Your task to perform on an android device: clear history in the chrome app Image 0: 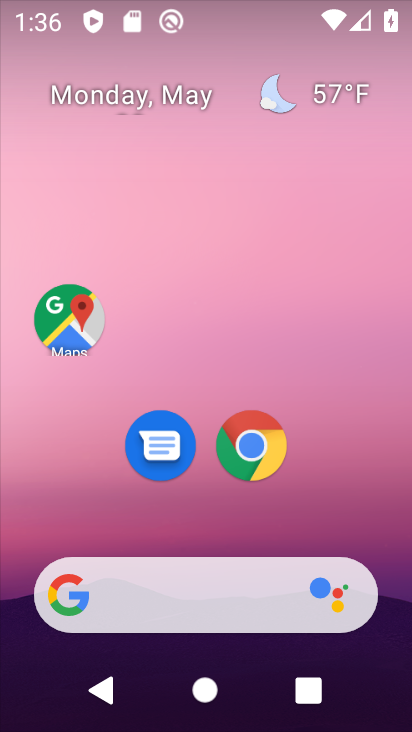
Step 0: click (241, 433)
Your task to perform on an android device: clear history in the chrome app Image 1: 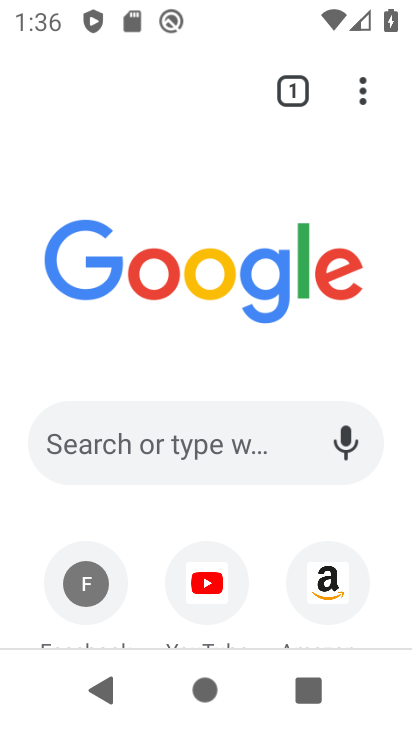
Step 1: click (341, 83)
Your task to perform on an android device: clear history in the chrome app Image 2: 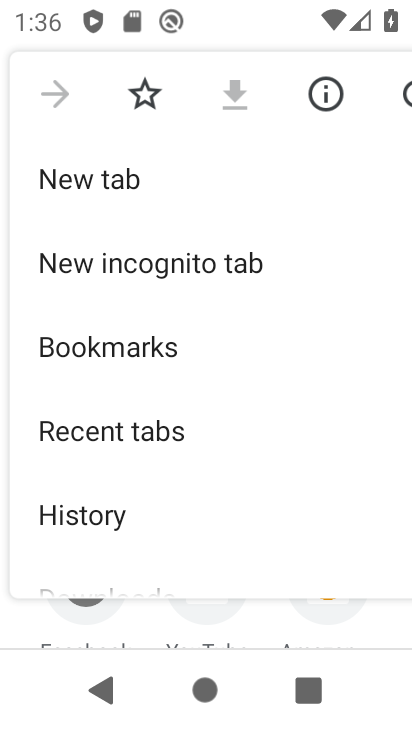
Step 2: click (187, 525)
Your task to perform on an android device: clear history in the chrome app Image 3: 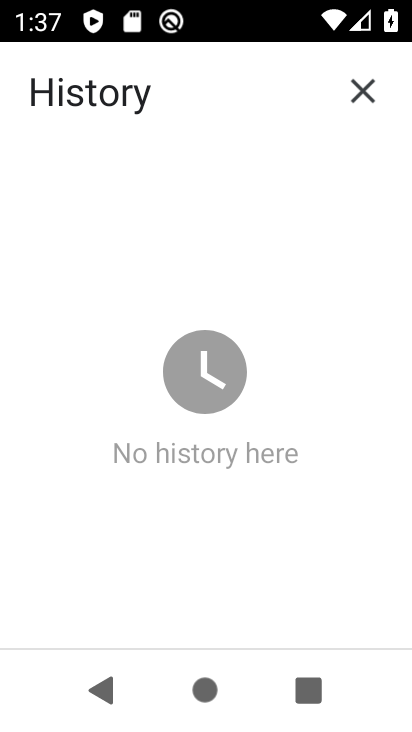
Step 3: task complete